Your task to perform on an android device: Open the phone app and click the voicemail tab. Image 0: 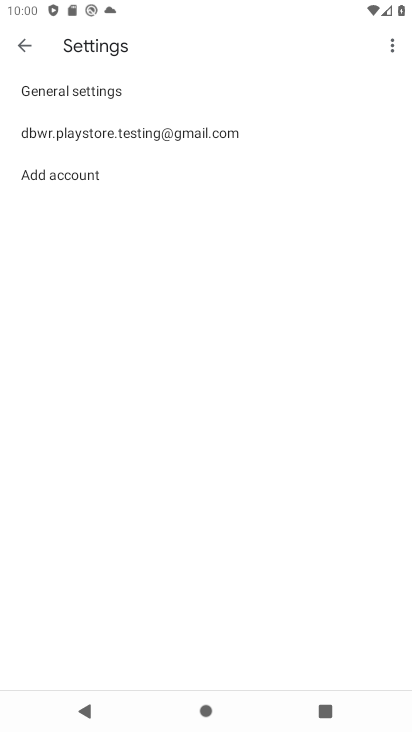
Step 0: press home button
Your task to perform on an android device: Open the phone app and click the voicemail tab. Image 1: 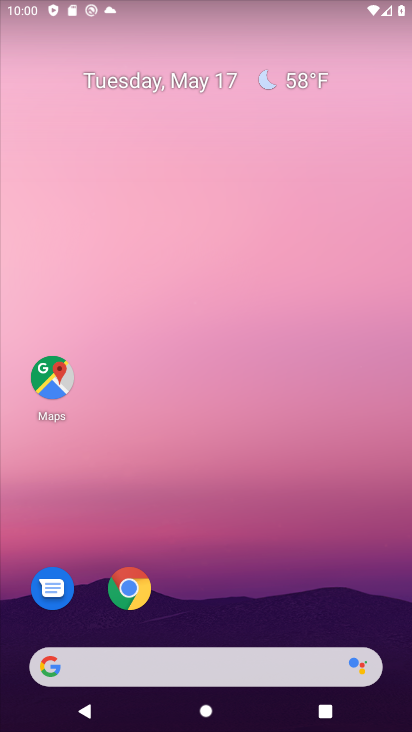
Step 1: drag from (263, 615) to (200, 89)
Your task to perform on an android device: Open the phone app and click the voicemail tab. Image 2: 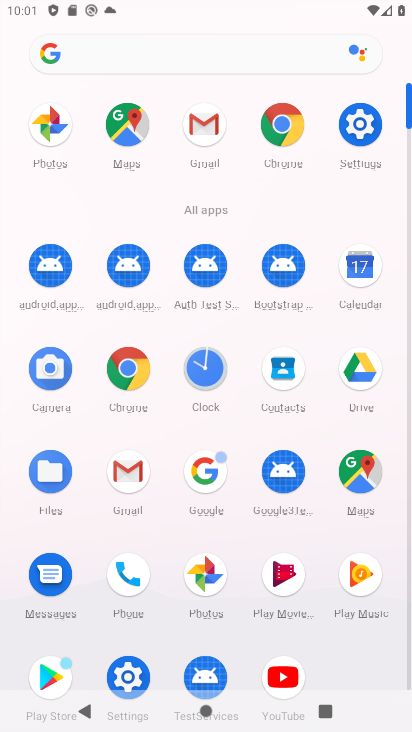
Step 2: click (130, 583)
Your task to perform on an android device: Open the phone app and click the voicemail tab. Image 3: 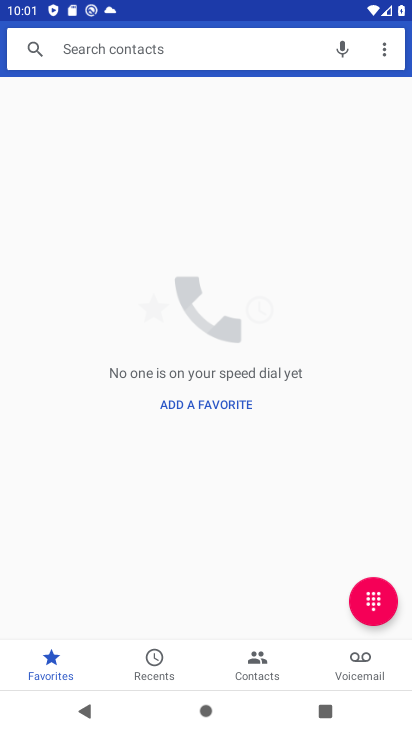
Step 3: click (367, 666)
Your task to perform on an android device: Open the phone app and click the voicemail tab. Image 4: 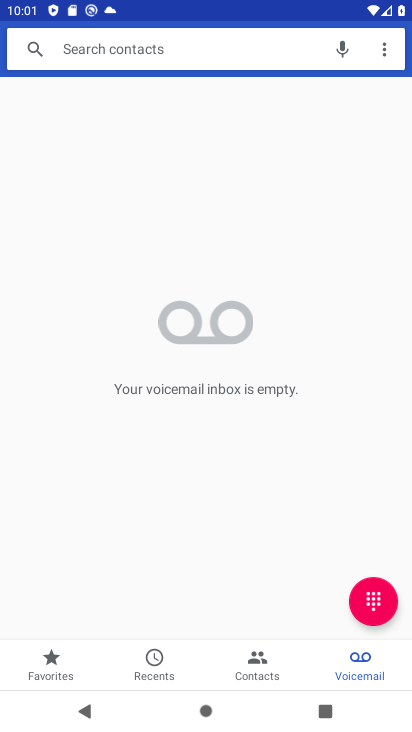
Step 4: task complete